Your task to perform on an android device: turn on location history Image 0: 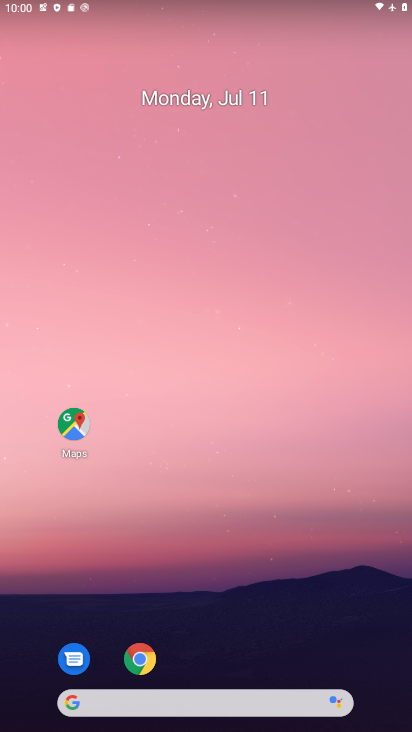
Step 0: click (226, 722)
Your task to perform on an android device: turn on location history Image 1: 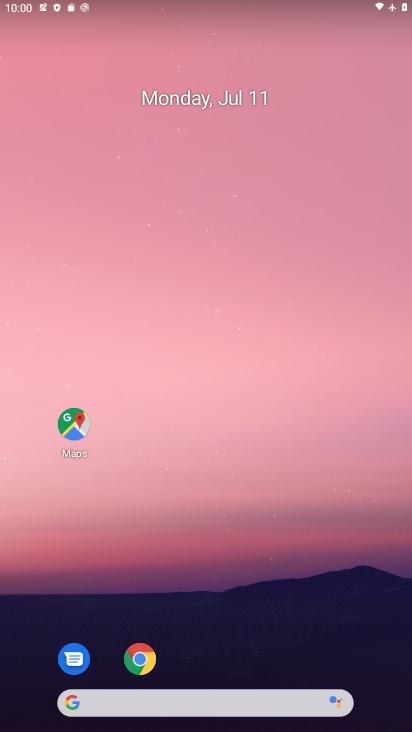
Step 1: drag from (223, 465) to (229, 77)
Your task to perform on an android device: turn on location history Image 2: 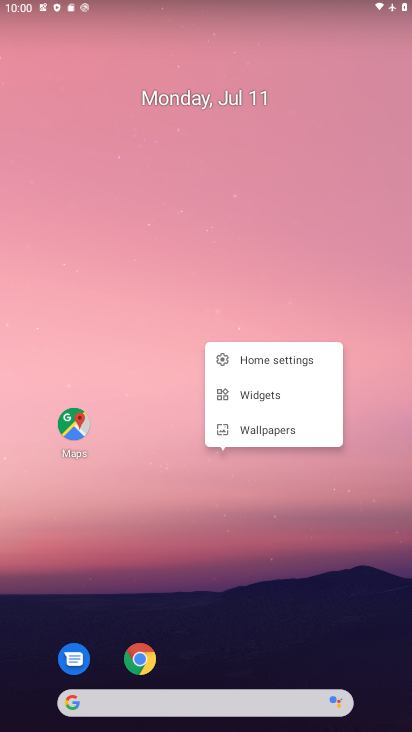
Step 2: click (357, 555)
Your task to perform on an android device: turn on location history Image 3: 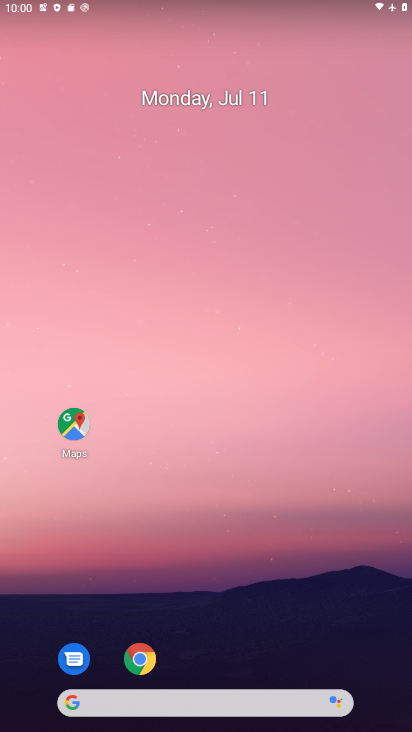
Step 3: drag from (211, 731) to (204, 2)
Your task to perform on an android device: turn on location history Image 4: 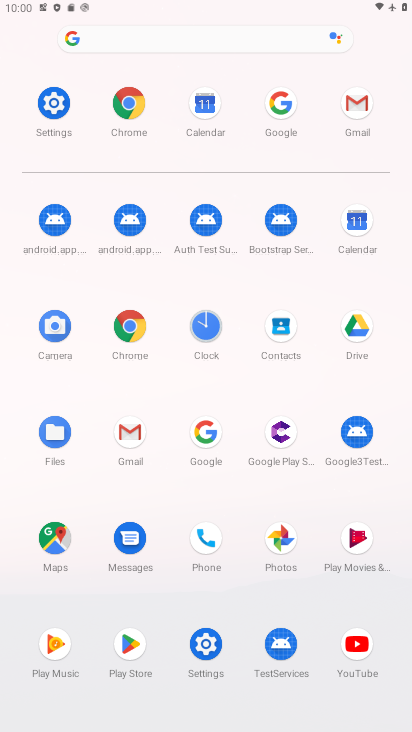
Step 4: click (51, 103)
Your task to perform on an android device: turn on location history Image 5: 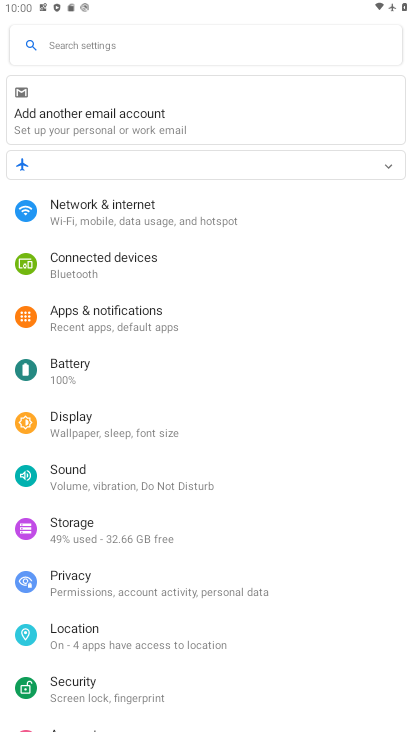
Step 5: click (71, 628)
Your task to perform on an android device: turn on location history Image 6: 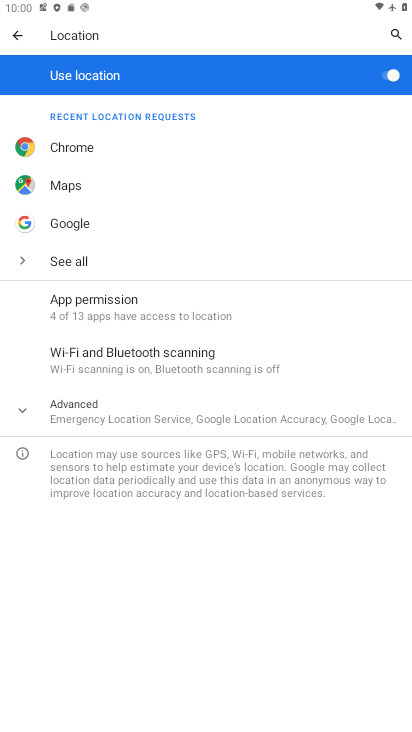
Step 6: click (82, 404)
Your task to perform on an android device: turn on location history Image 7: 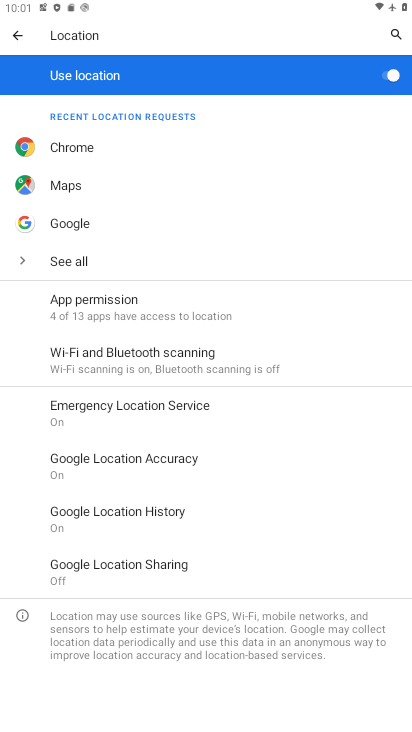
Step 7: click (135, 509)
Your task to perform on an android device: turn on location history Image 8: 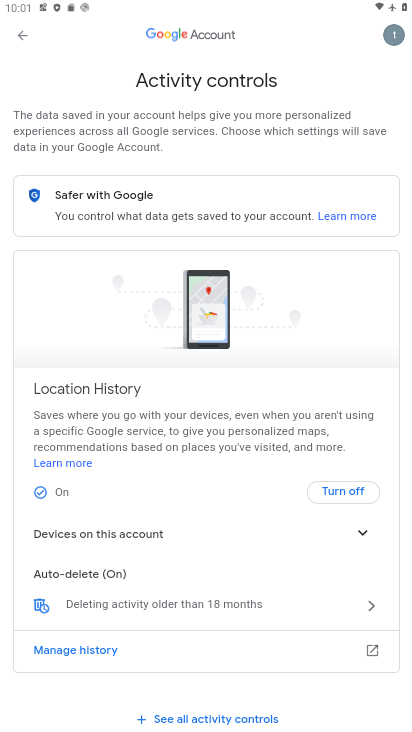
Step 8: task complete